Your task to perform on an android device: Check the news Image 0: 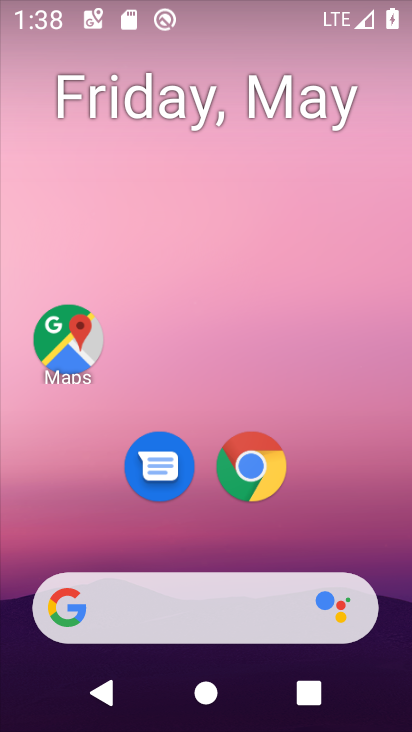
Step 0: drag from (359, 456) to (319, 5)
Your task to perform on an android device: Check the news Image 1: 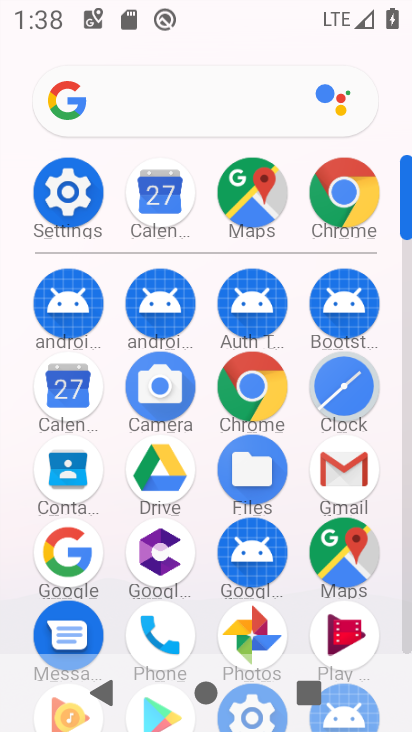
Step 1: click (340, 187)
Your task to perform on an android device: Check the news Image 2: 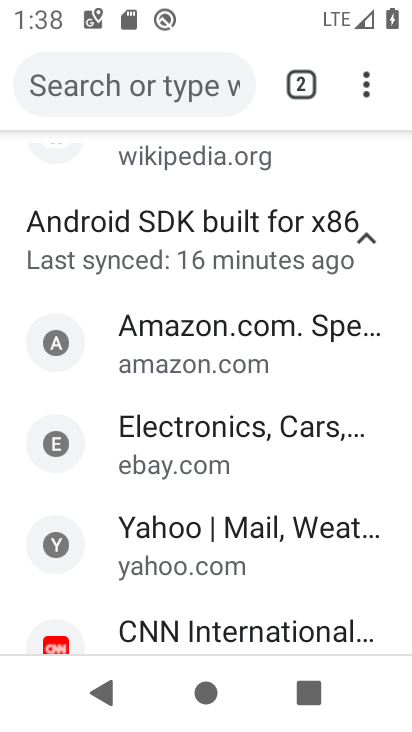
Step 2: task complete